Your task to perform on an android device: check battery use Image 0: 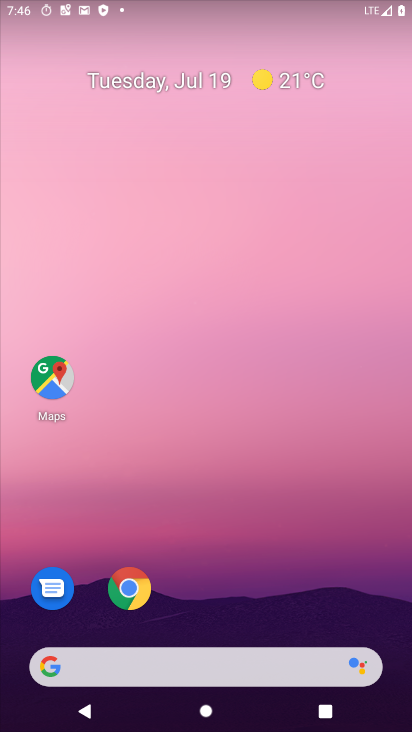
Step 0: drag from (255, 571) to (244, 164)
Your task to perform on an android device: check battery use Image 1: 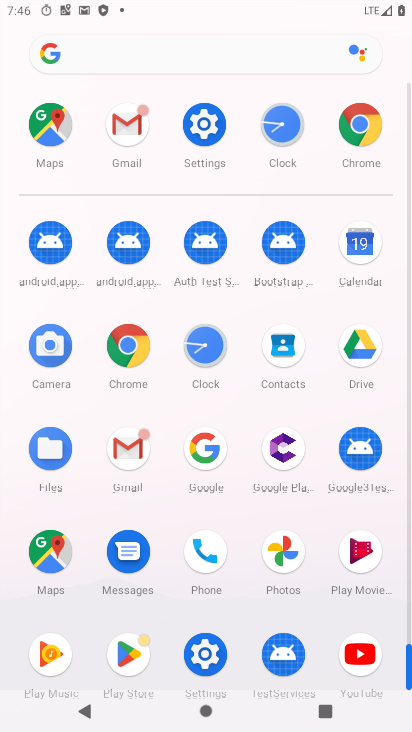
Step 1: click (198, 653)
Your task to perform on an android device: check battery use Image 2: 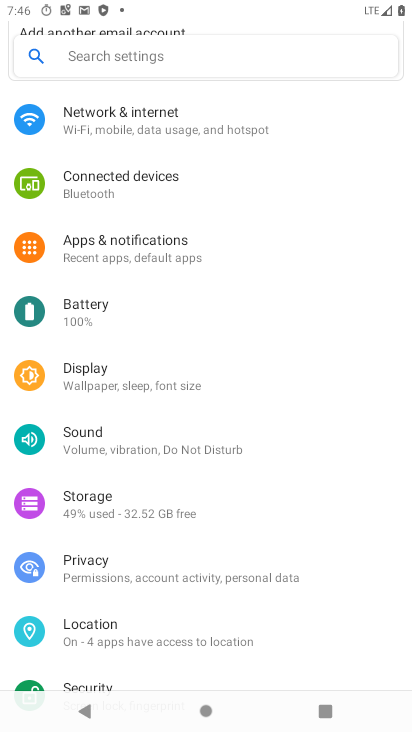
Step 2: click (121, 321)
Your task to perform on an android device: check battery use Image 3: 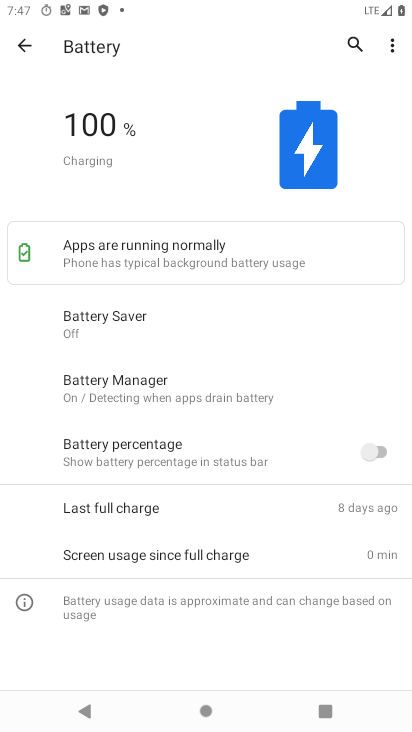
Step 3: click (395, 48)
Your task to perform on an android device: check battery use Image 4: 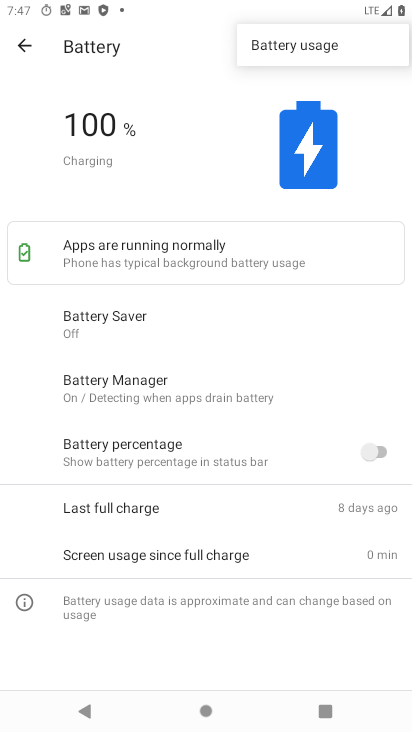
Step 4: click (348, 46)
Your task to perform on an android device: check battery use Image 5: 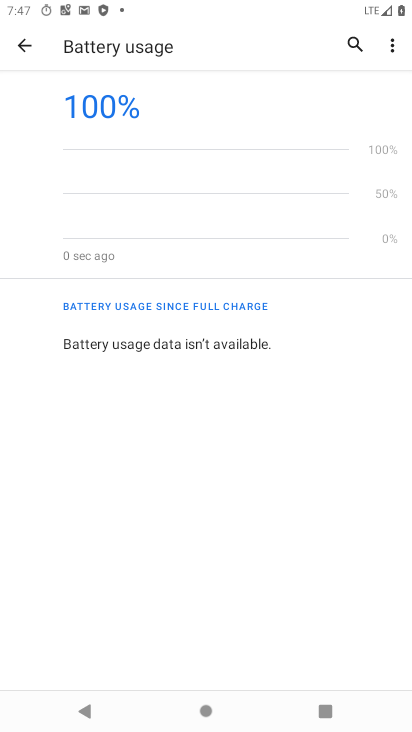
Step 5: task complete